Your task to perform on an android device: Open Google Chrome Image 0: 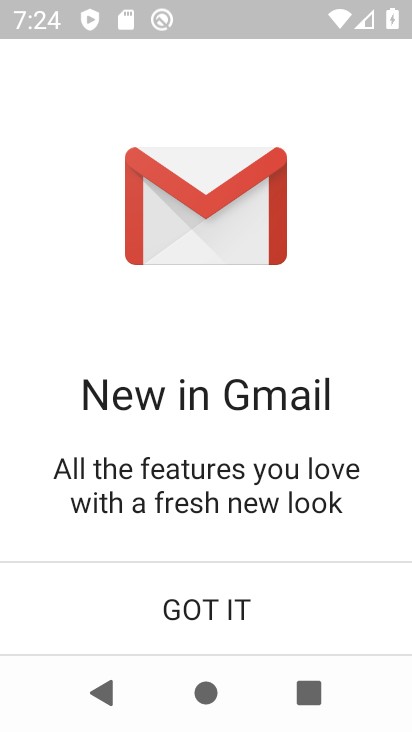
Step 0: press home button
Your task to perform on an android device: Open Google Chrome Image 1: 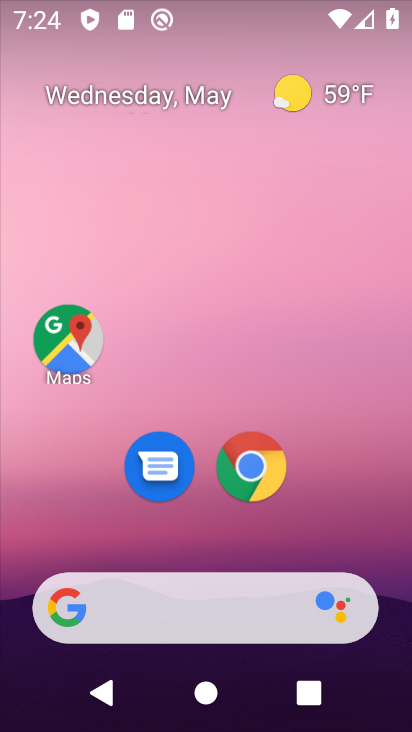
Step 1: drag from (332, 405) to (390, 183)
Your task to perform on an android device: Open Google Chrome Image 2: 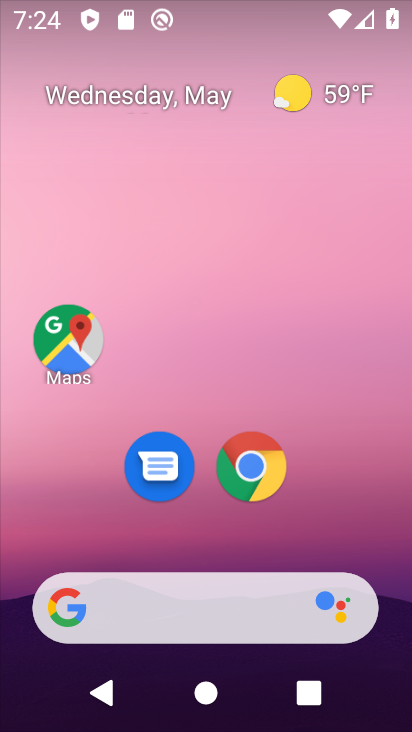
Step 2: drag from (309, 542) to (340, 204)
Your task to perform on an android device: Open Google Chrome Image 3: 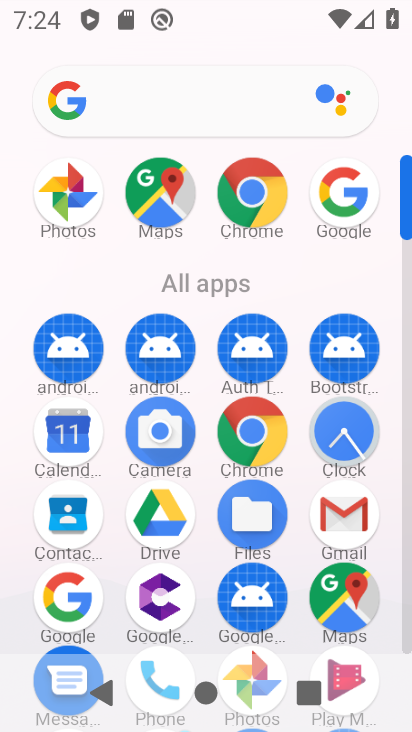
Step 3: click (233, 427)
Your task to perform on an android device: Open Google Chrome Image 4: 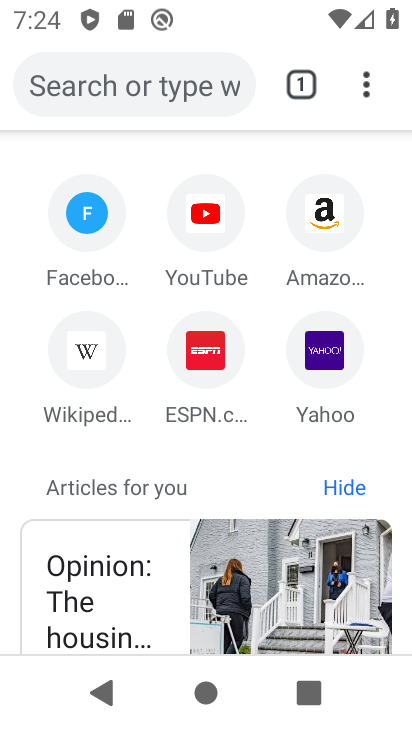
Step 4: click (347, 78)
Your task to perform on an android device: Open Google Chrome Image 5: 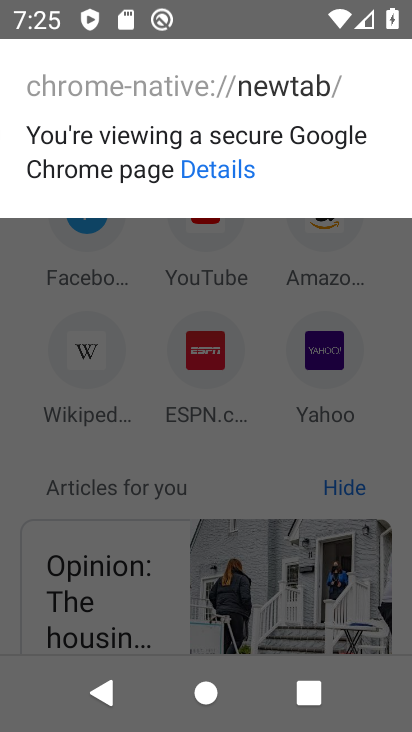
Step 5: click (356, 262)
Your task to perform on an android device: Open Google Chrome Image 6: 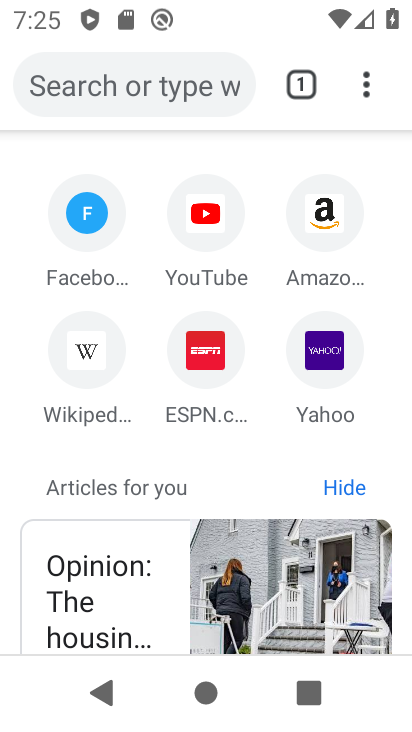
Step 6: click (352, 89)
Your task to perform on an android device: Open Google Chrome Image 7: 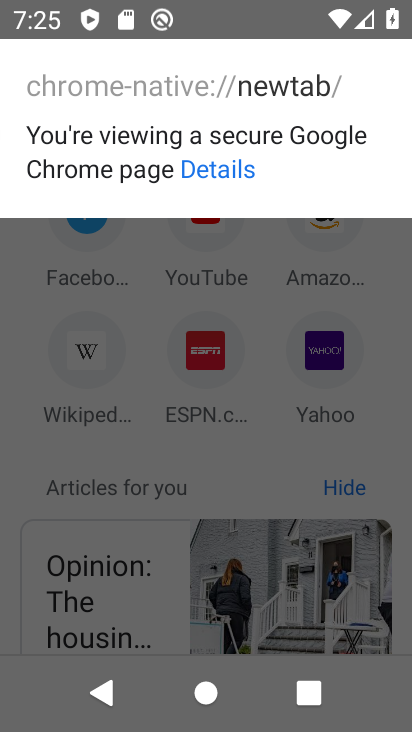
Step 7: press back button
Your task to perform on an android device: Open Google Chrome Image 8: 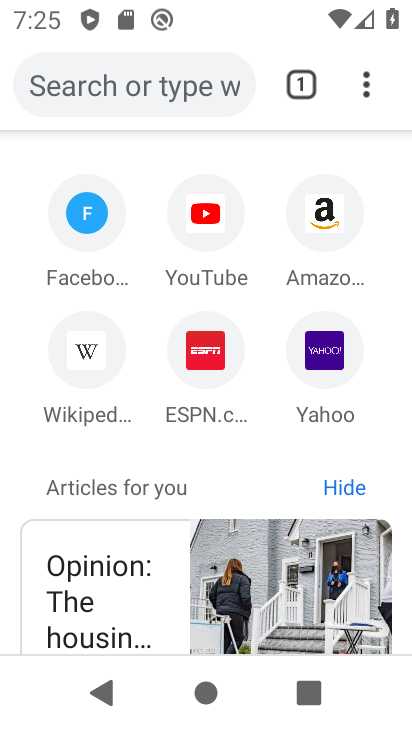
Step 8: click (371, 83)
Your task to perform on an android device: Open Google Chrome Image 9: 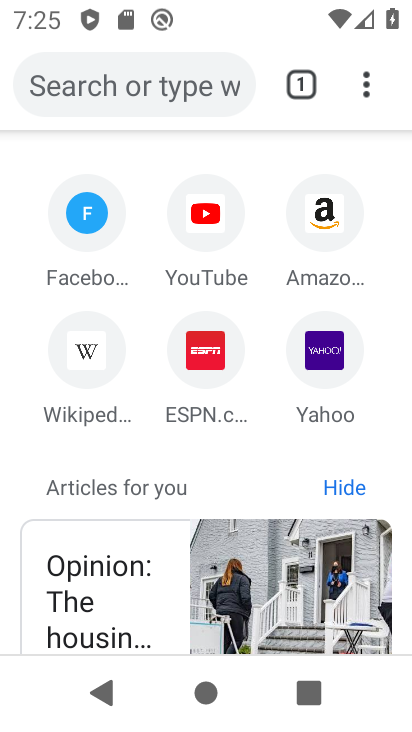
Step 9: click (384, 69)
Your task to perform on an android device: Open Google Chrome Image 10: 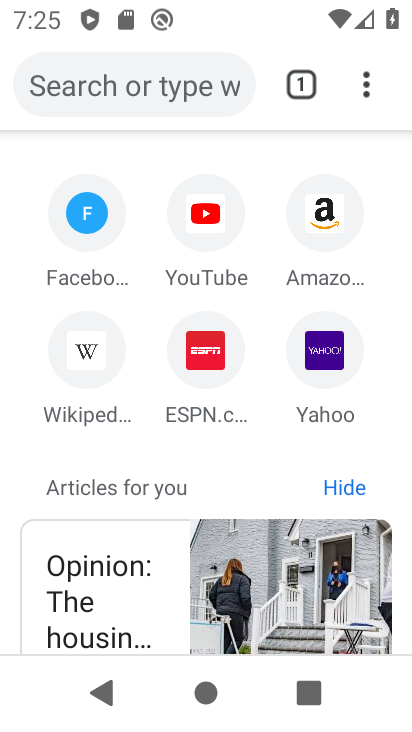
Step 10: click (354, 80)
Your task to perform on an android device: Open Google Chrome Image 11: 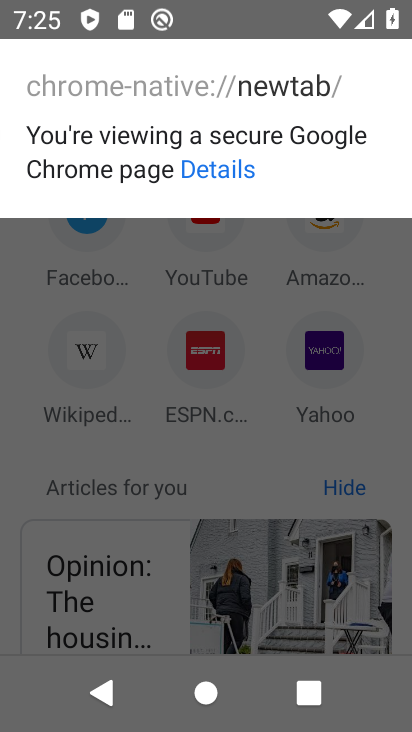
Step 11: press back button
Your task to perform on an android device: Open Google Chrome Image 12: 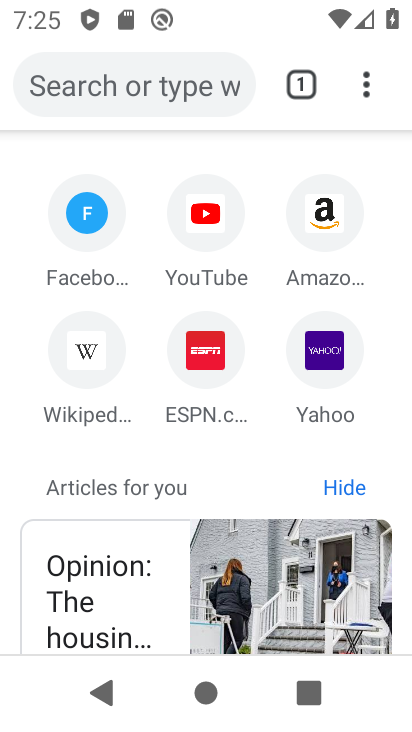
Step 12: click (351, 87)
Your task to perform on an android device: Open Google Chrome Image 13: 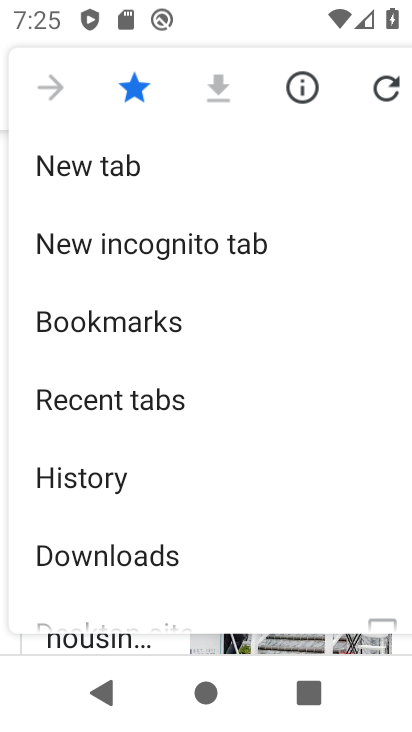
Step 13: click (109, 173)
Your task to perform on an android device: Open Google Chrome Image 14: 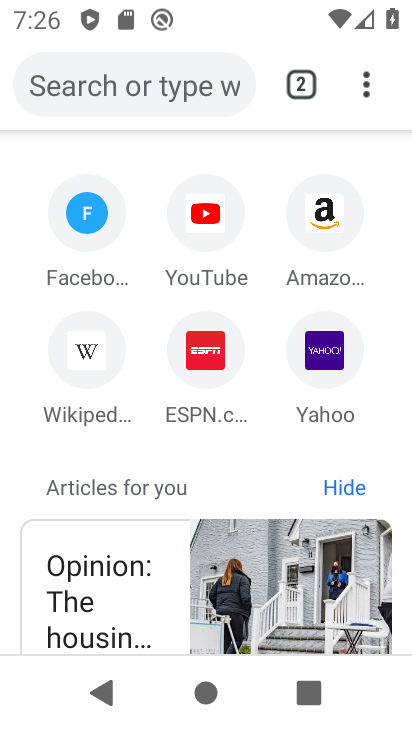
Step 14: task complete